Your task to perform on an android device: turn off location Image 0: 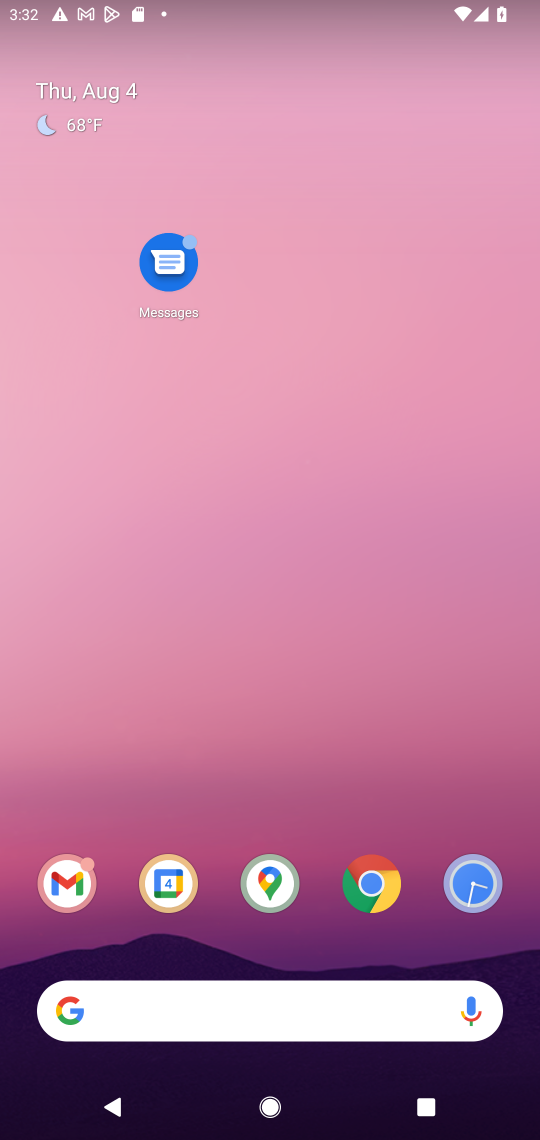
Step 0: drag from (305, 915) to (305, 122)
Your task to perform on an android device: turn off location Image 1: 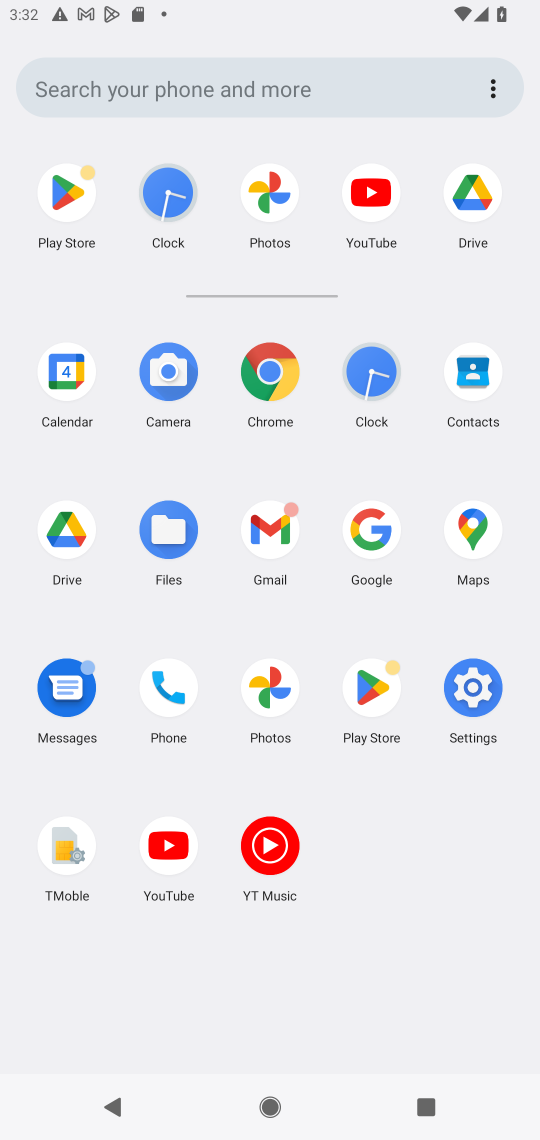
Step 1: click (477, 693)
Your task to perform on an android device: turn off location Image 2: 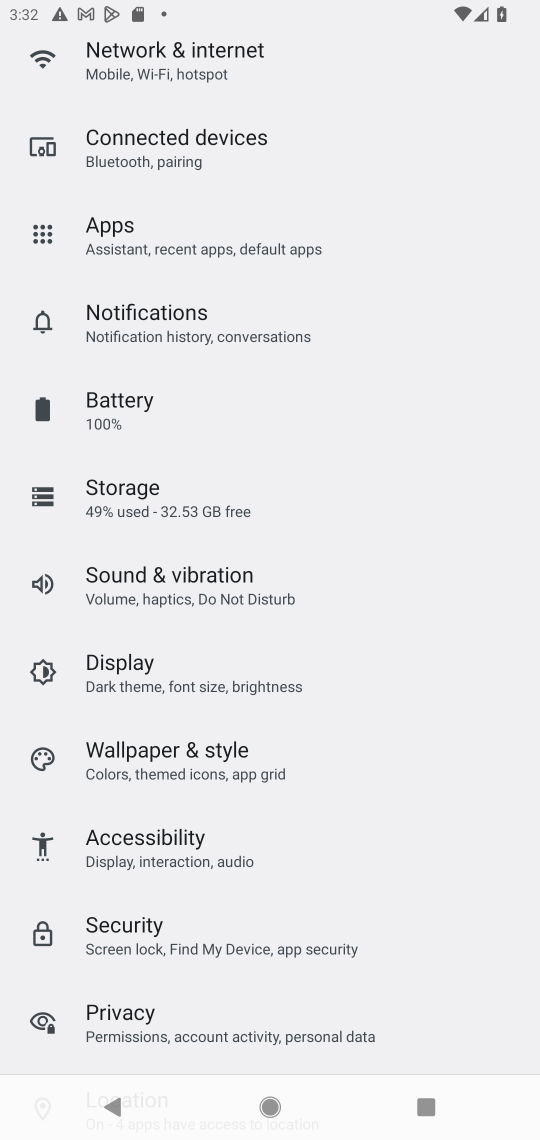
Step 2: drag from (177, 951) to (209, 370)
Your task to perform on an android device: turn off location Image 3: 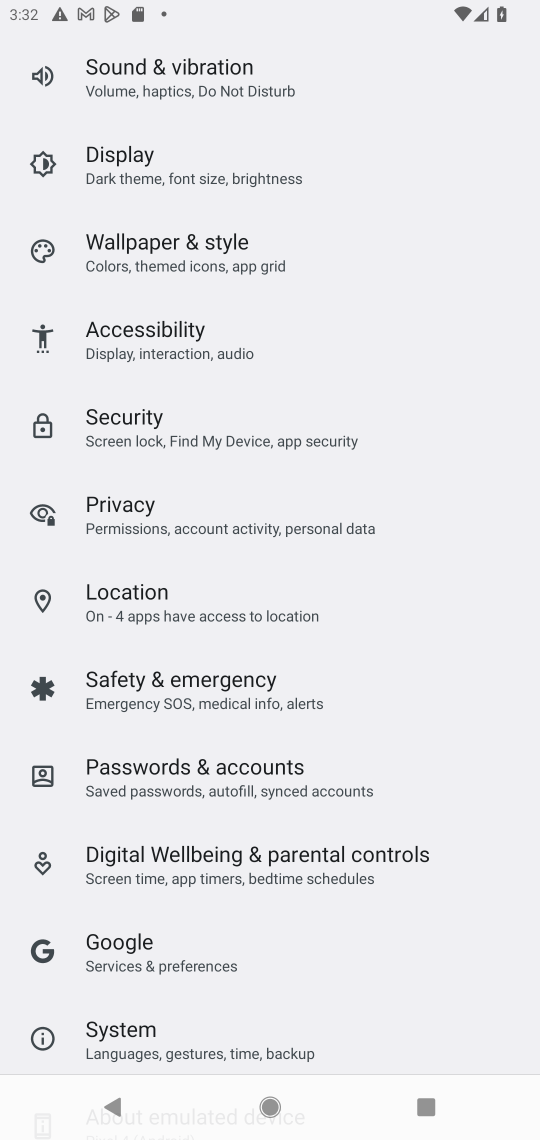
Step 3: click (121, 593)
Your task to perform on an android device: turn off location Image 4: 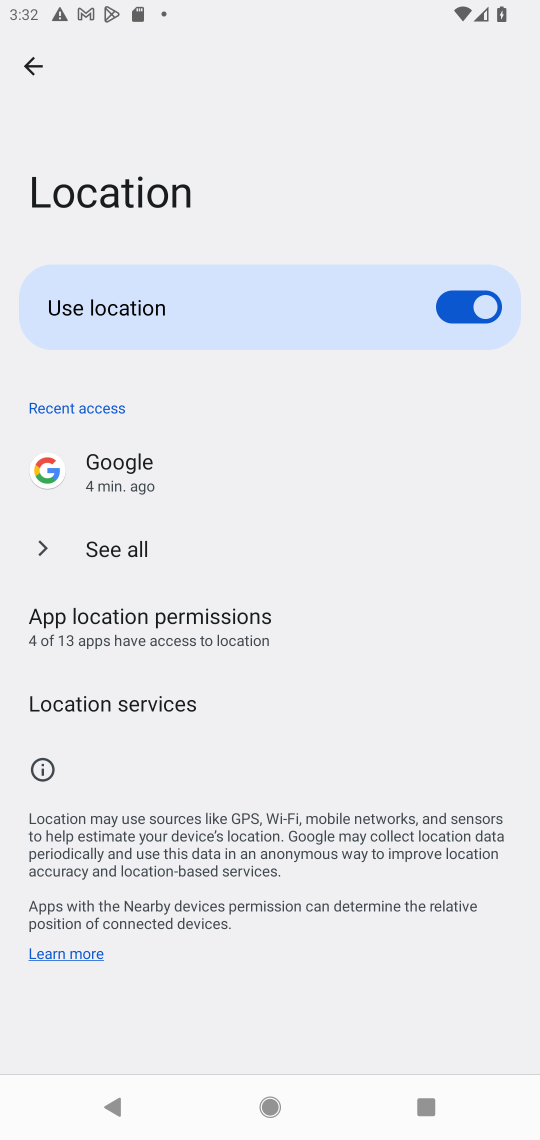
Step 4: click (455, 312)
Your task to perform on an android device: turn off location Image 5: 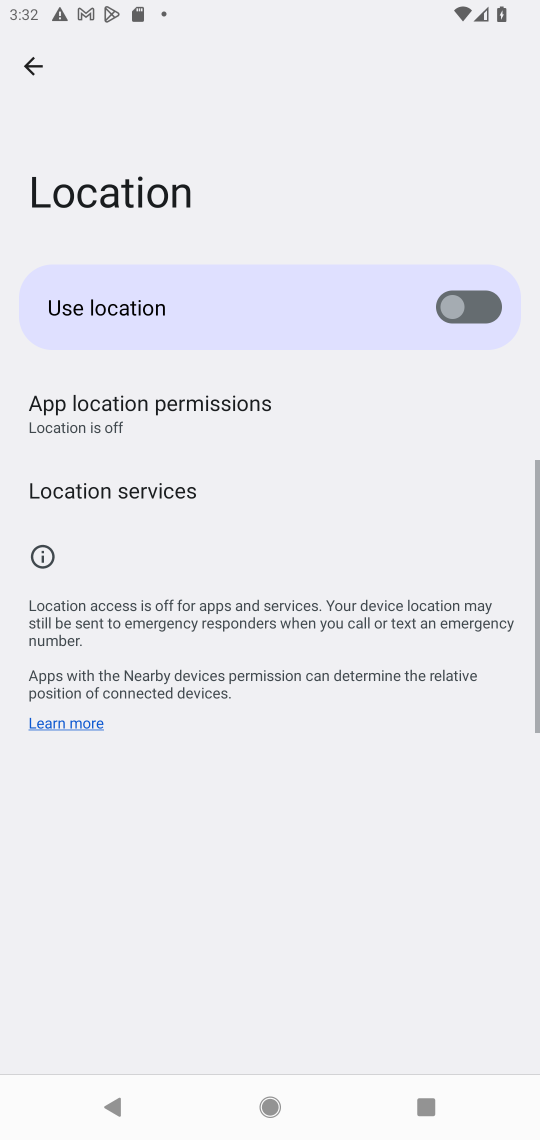
Step 5: task complete